Your task to perform on an android device: turn on sleep mode Image 0: 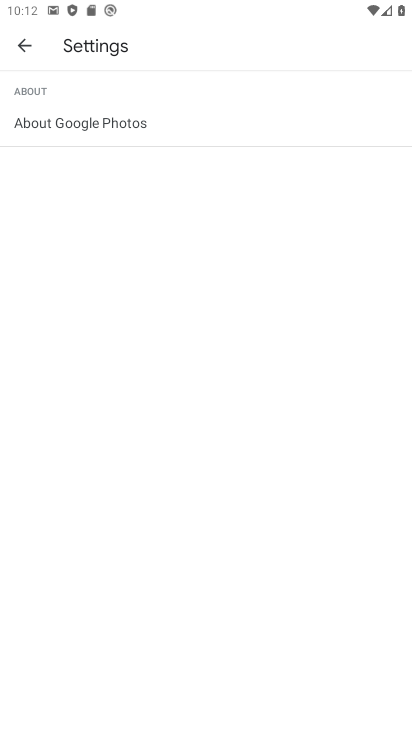
Step 0: press home button
Your task to perform on an android device: turn on sleep mode Image 1: 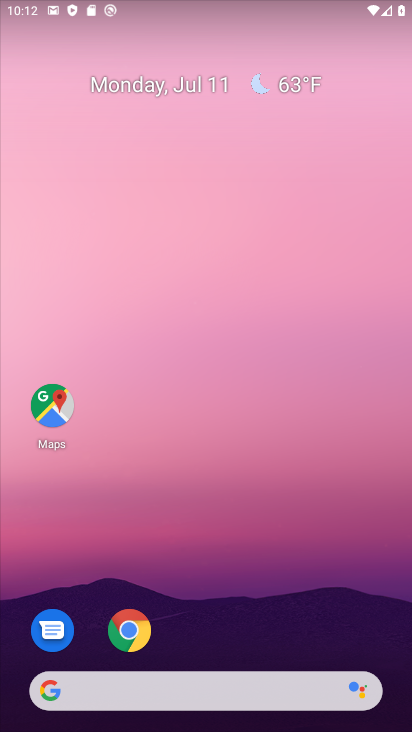
Step 1: drag from (318, 643) to (244, 167)
Your task to perform on an android device: turn on sleep mode Image 2: 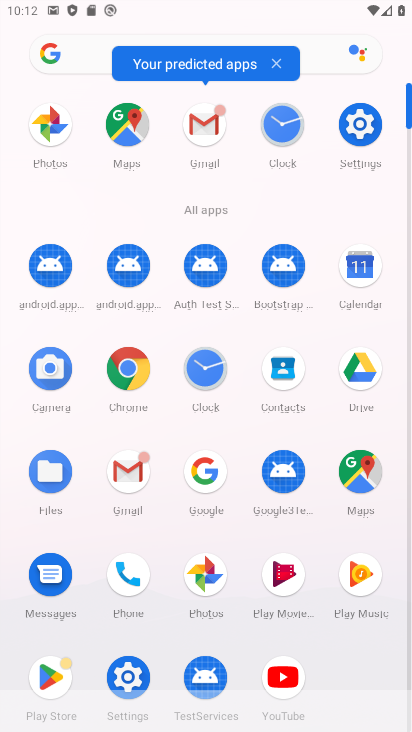
Step 2: click (128, 678)
Your task to perform on an android device: turn on sleep mode Image 3: 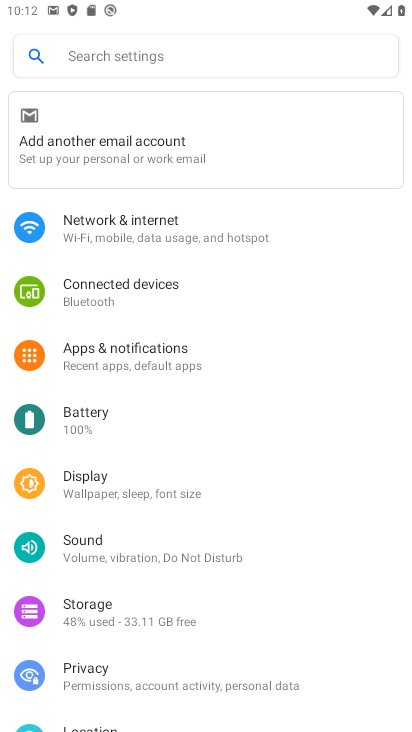
Step 3: click (105, 482)
Your task to perform on an android device: turn on sleep mode Image 4: 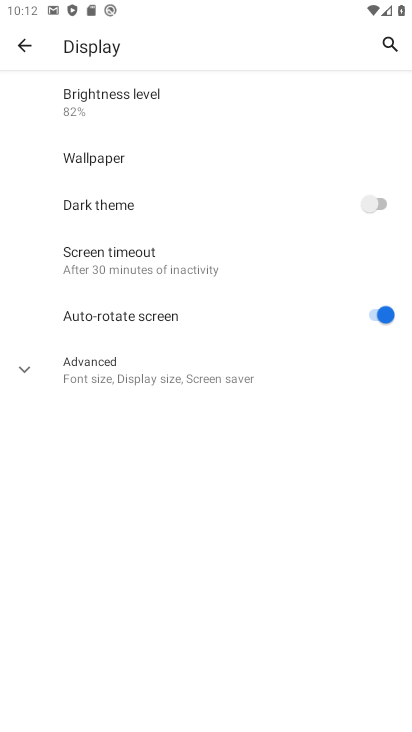
Step 4: click (12, 367)
Your task to perform on an android device: turn on sleep mode Image 5: 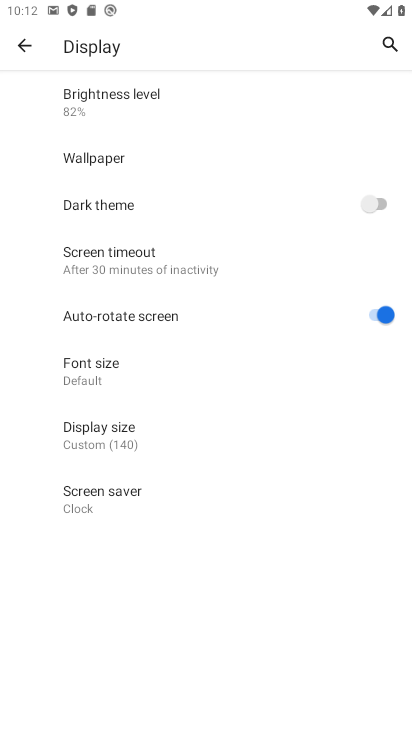
Step 5: click (132, 254)
Your task to perform on an android device: turn on sleep mode Image 6: 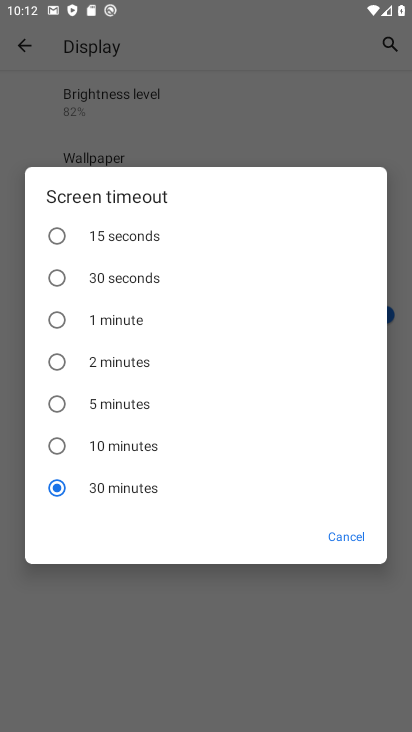
Step 6: task complete